Your task to perform on an android device: Search for logitech g pro on walmart, select the first entry, add it to the cart, then select checkout. Image 0: 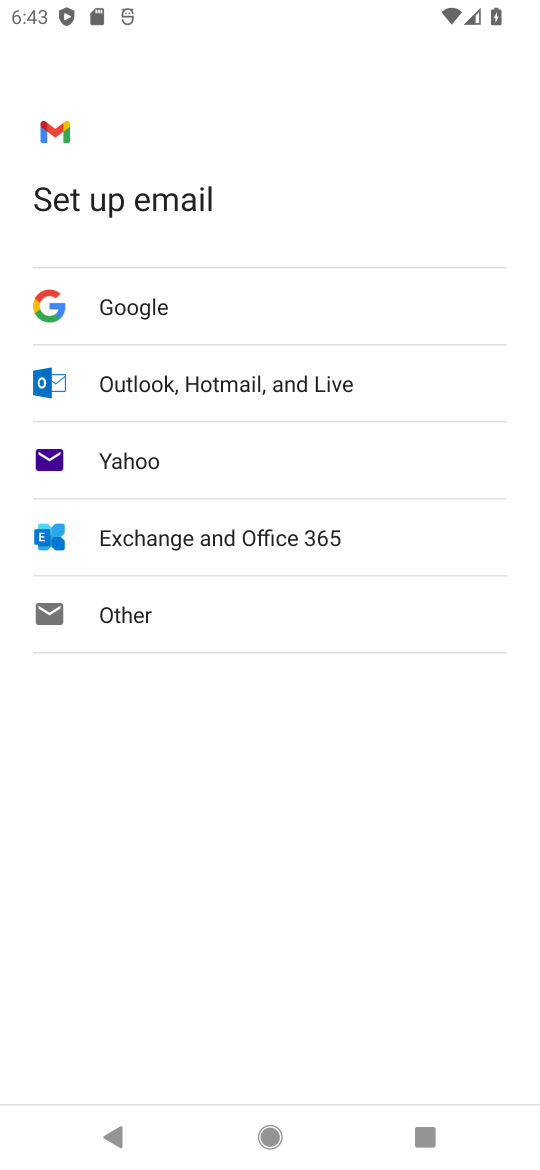
Step 0: press home button
Your task to perform on an android device: Search for logitech g pro on walmart, select the first entry, add it to the cart, then select checkout. Image 1: 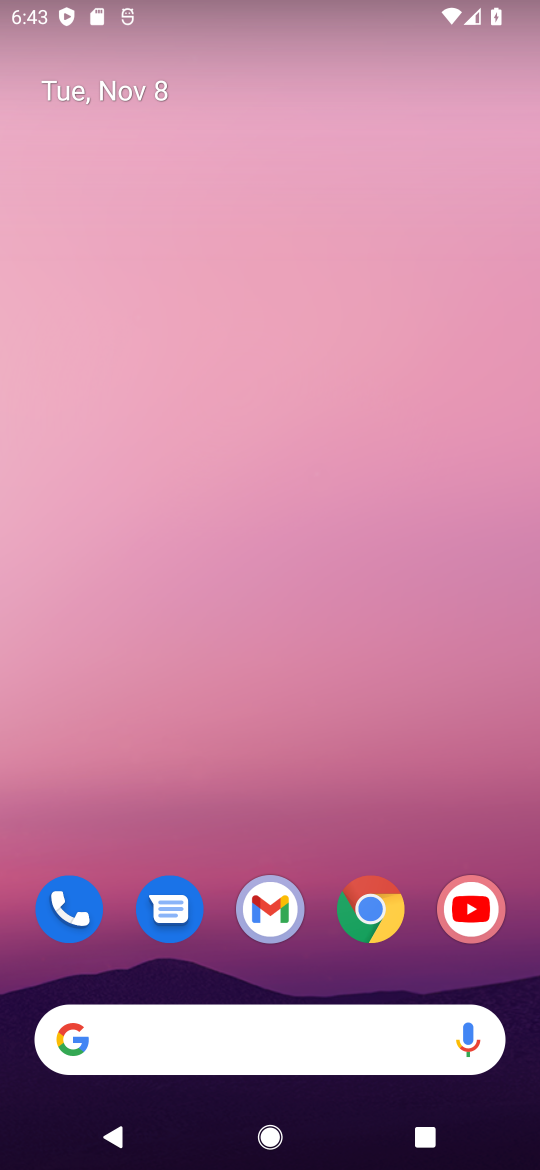
Step 1: click (358, 925)
Your task to perform on an android device: Search for logitech g pro on walmart, select the first entry, add it to the cart, then select checkout. Image 2: 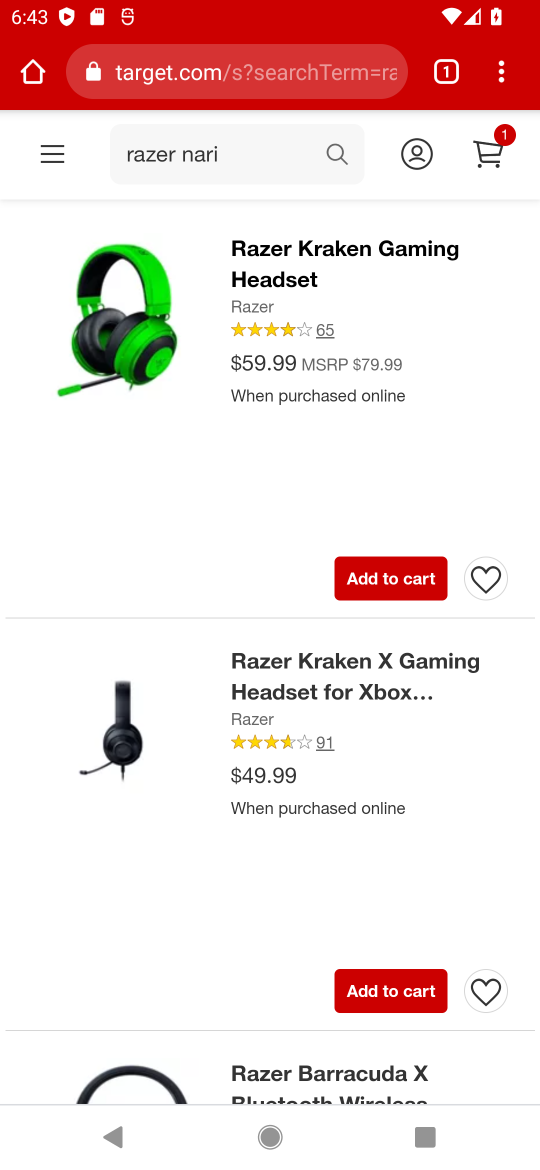
Step 2: click (265, 77)
Your task to perform on an android device: Search for logitech g pro on walmart, select the first entry, add it to the cart, then select checkout. Image 3: 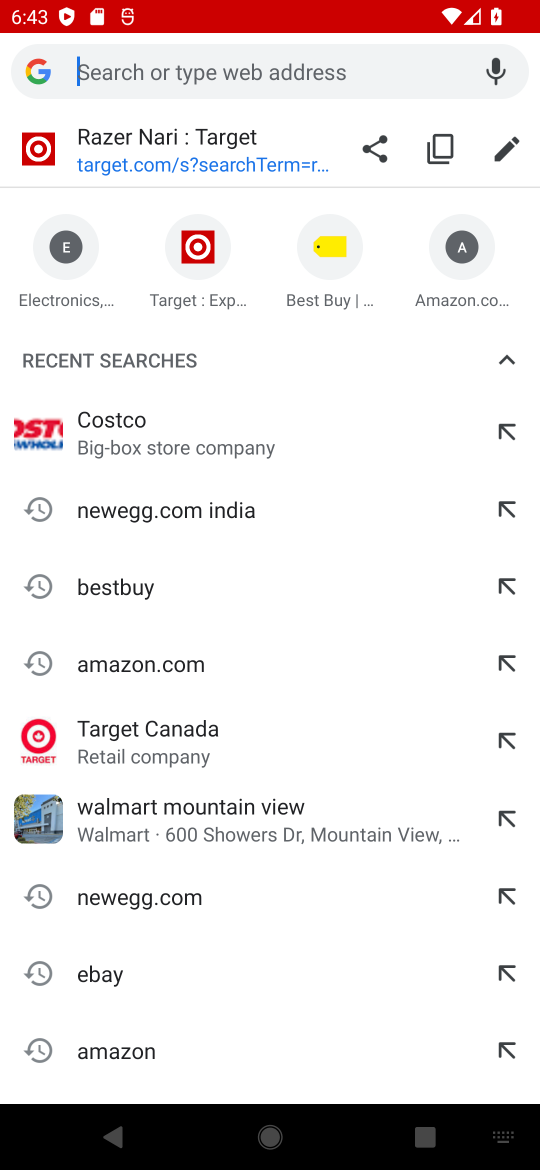
Step 3: drag from (461, 267) to (31, 258)
Your task to perform on an android device: Search for logitech g pro on walmart, select the first entry, add it to the cart, then select checkout. Image 4: 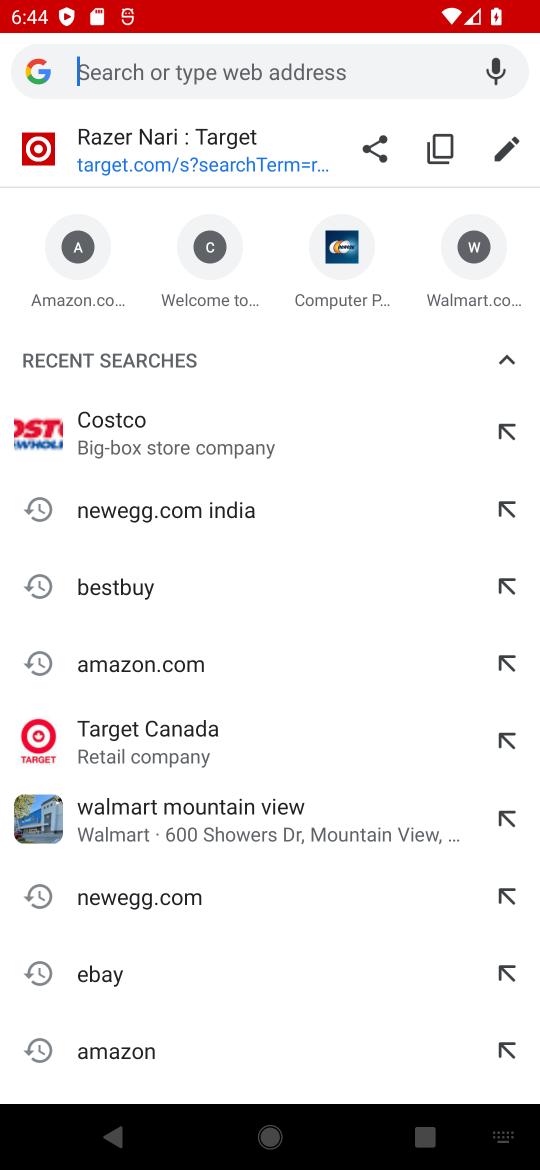
Step 4: click (467, 294)
Your task to perform on an android device: Search for logitech g pro on walmart, select the first entry, add it to the cart, then select checkout. Image 5: 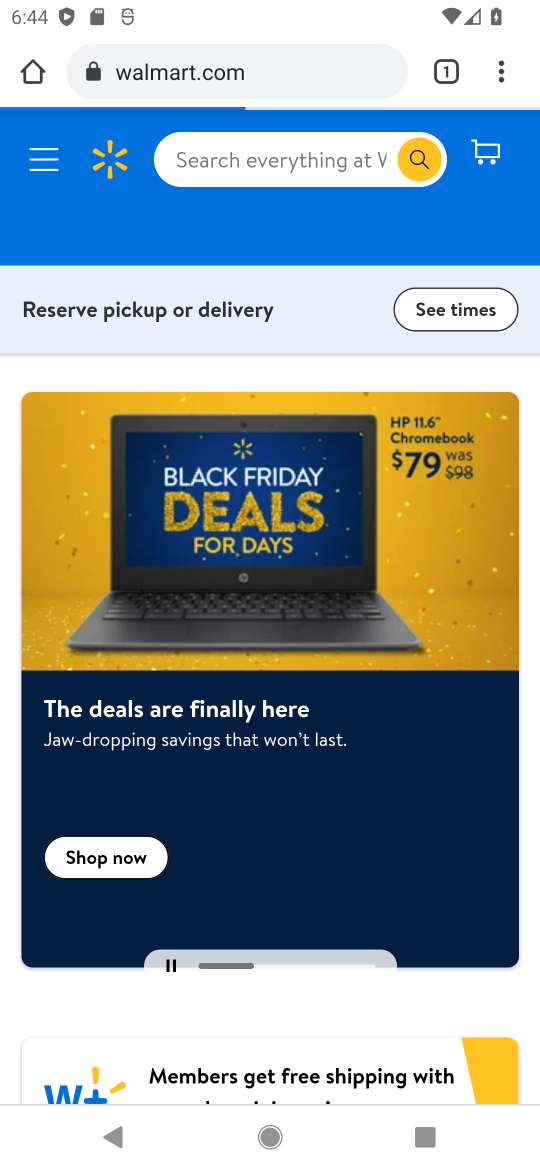
Step 5: click (304, 159)
Your task to perform on an android device: Search for logitech g pro on walmart, select the first entry, add it to the cart, then select checkout. Image 6: 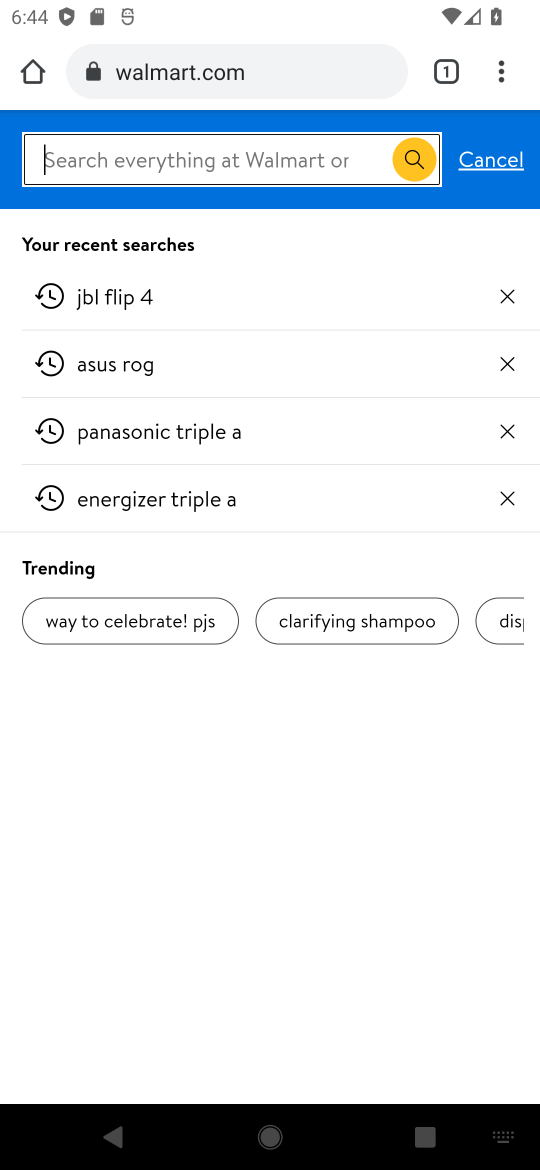
Step 6: press enter
Your task to perform on an android device: Search for logitech g pro on walmart, select the first entry, add it to the cart, then select checkout. Image 7: 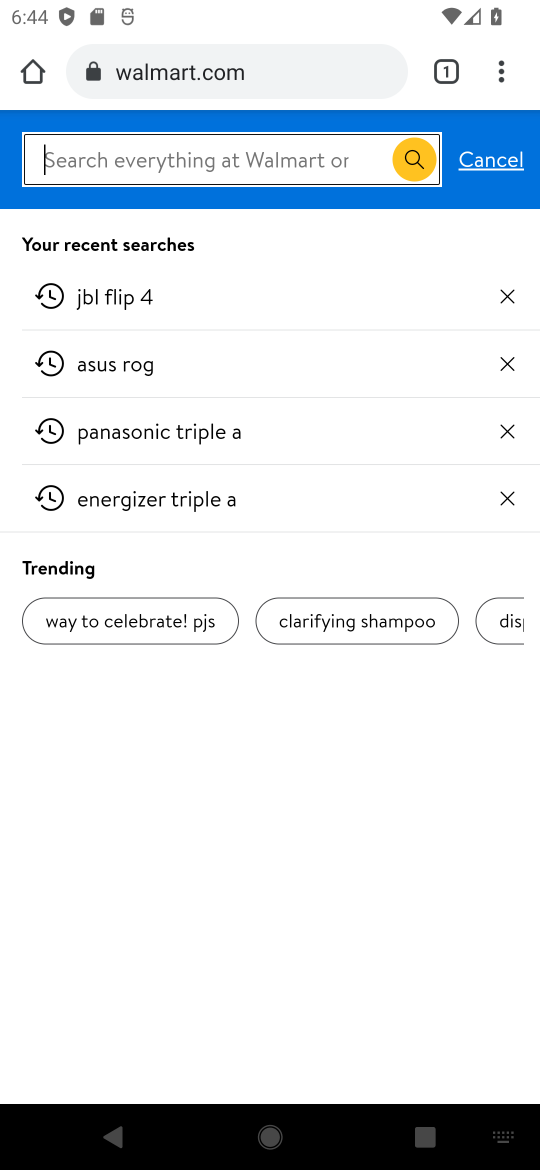
Step 7: type " logitech g pro"
Your task to perform on an android device: Search for logitech g pro on walmart, select the first entry, add it to the cart, then select checkout. Image 8: 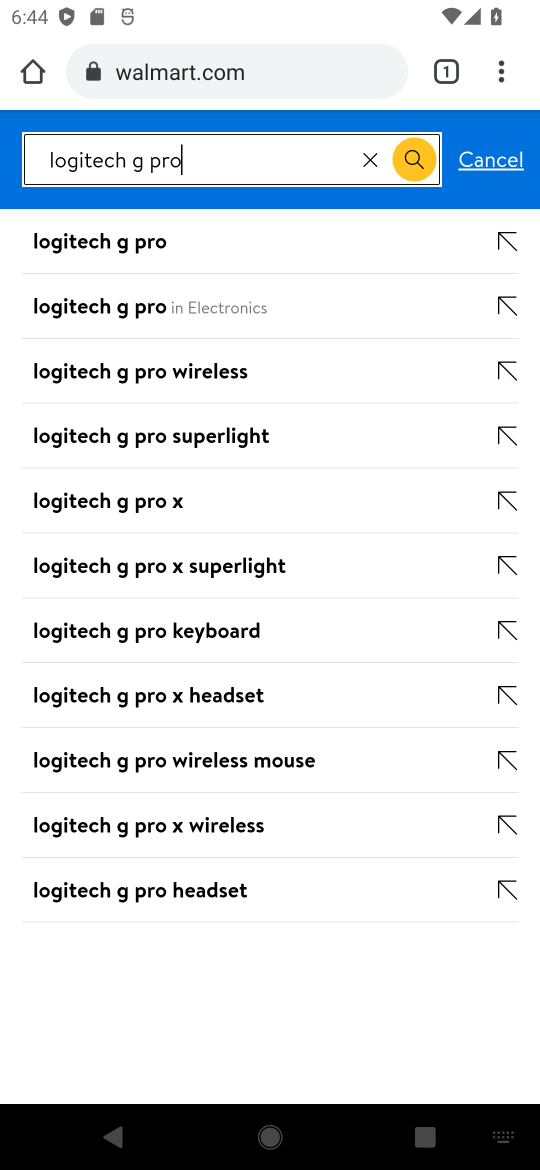
Step 8: press enter
Your task to perform on an android device: Search for logitech g pro on walmart, select the first entry, add it to the cart, then select checkout. Image 9: 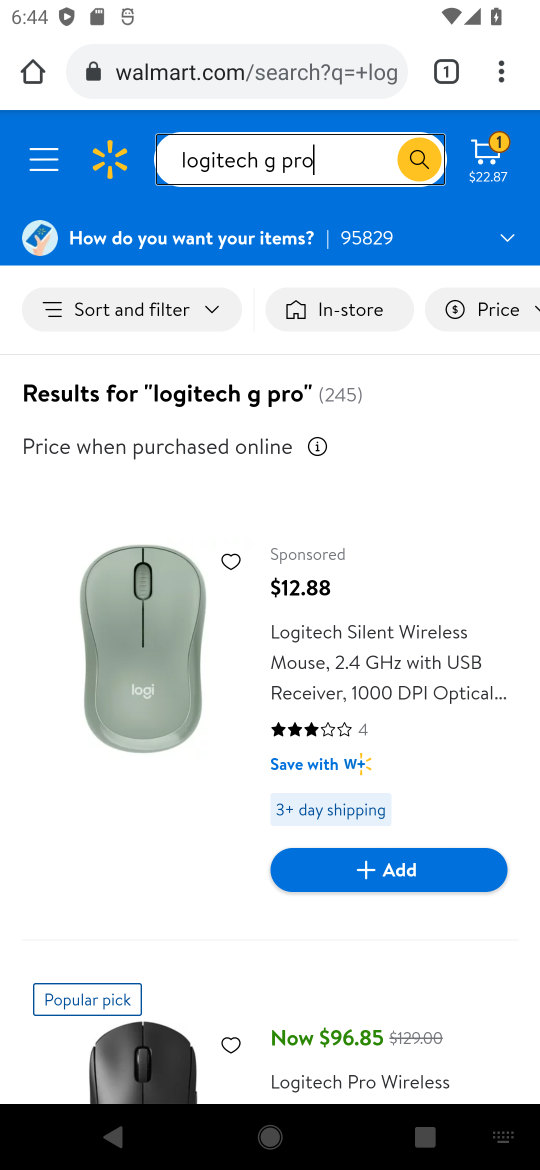
Step 9: task complete